Your task to perform on an android device: toggle location history Image 0: 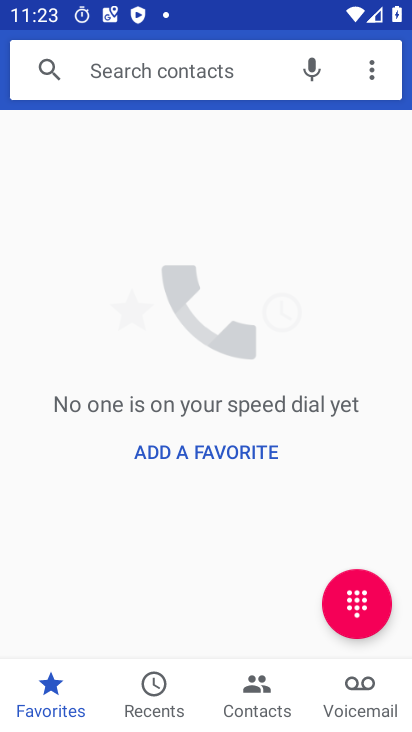
Step 0: press back button
Your task to perform on an android device: toggle location history Image 1: 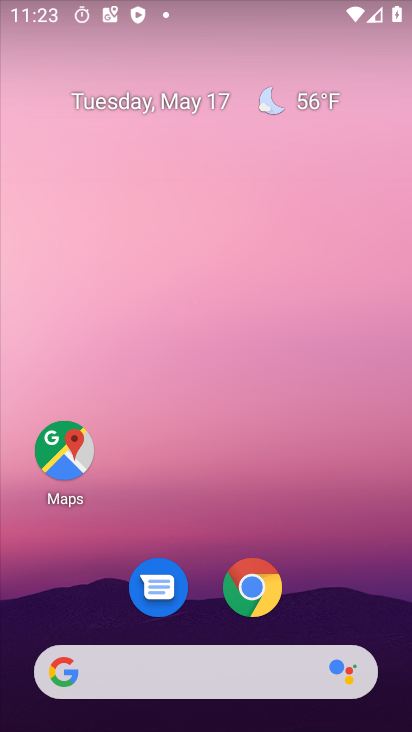
Step 1: drag from (332, 576) to (165, 97)
Your task to perform on an android device: toggle location history Image 2: 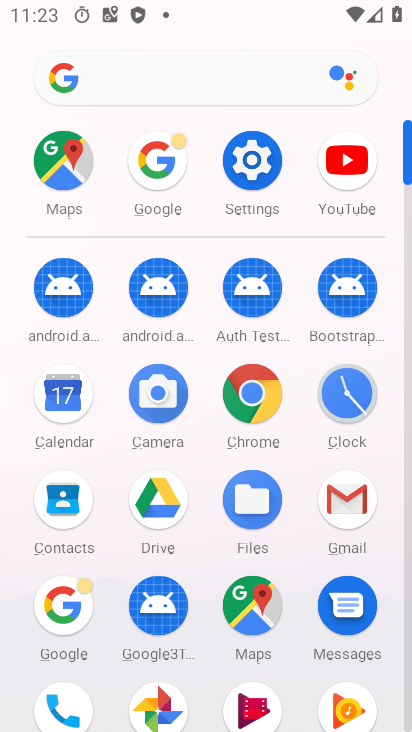
Step 2: click (254, 162)
Your task to perform on an android device: toggle location history Image 3: 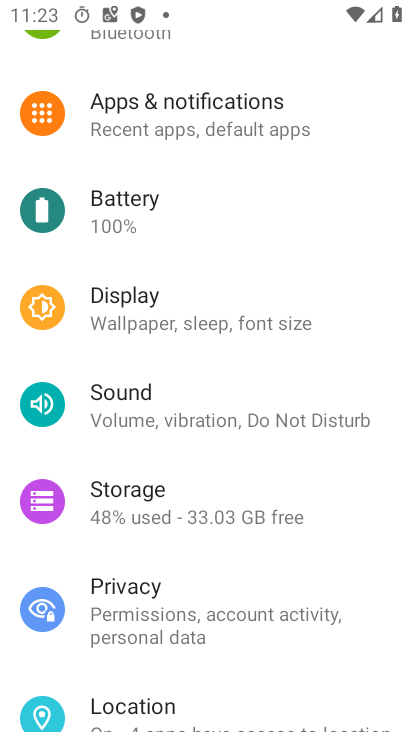
Step 3: drag from (186, 483) to (195, 323)
Your task to perform on an android device: toggle location history Image 4: 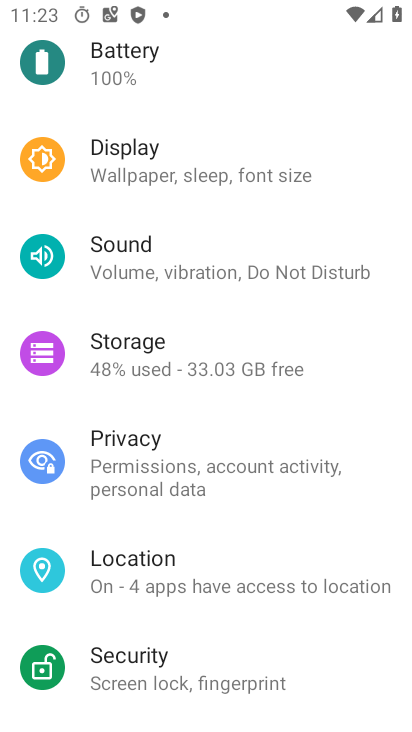
Step 4: drag from (160, 529) to (175, 399)
Your task to perform on an android device: toggle location history Image 5: 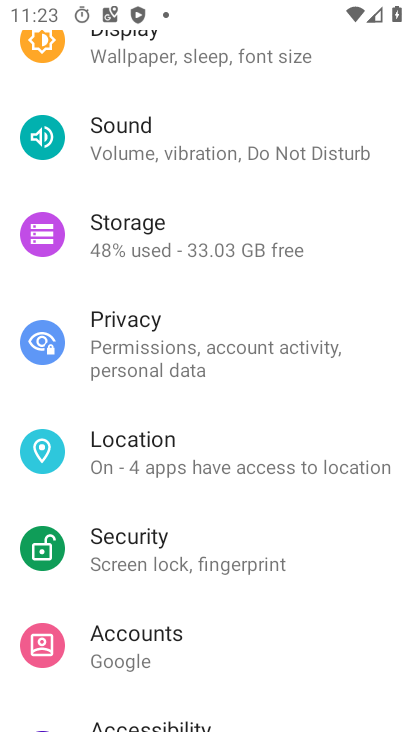
Step 5: drag from (142, 513) to (162, 387)
Your task to perform on an android device: toggle location history Image 6: 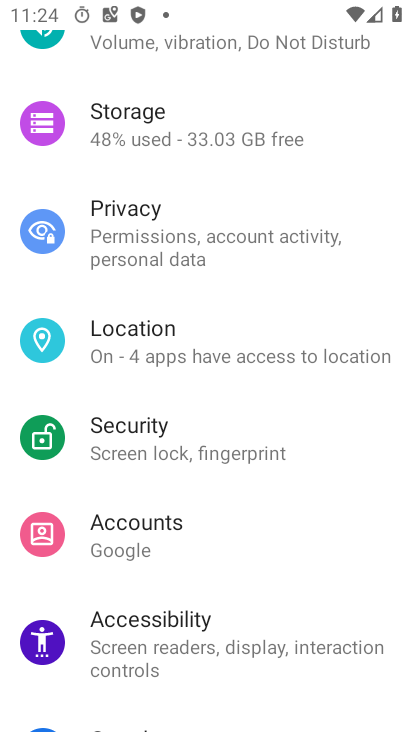
Step 6: click (143, 340)
Your task to perform on an android device: toggle location history Image 7: 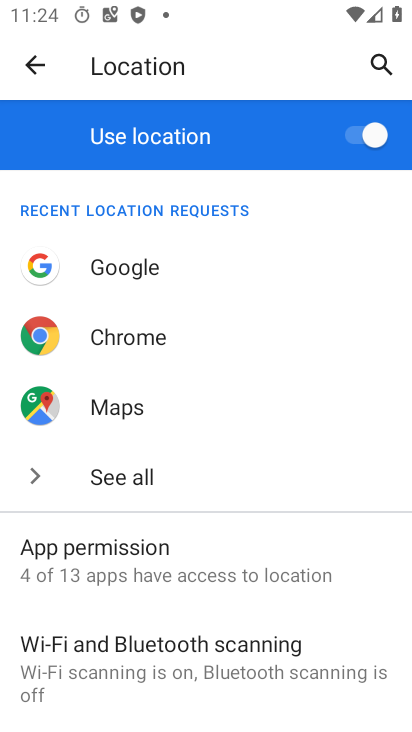
Step 7: drag from (128, 628) to (152, 505)
Your task to perform on an android device: toggle location history Image 8: 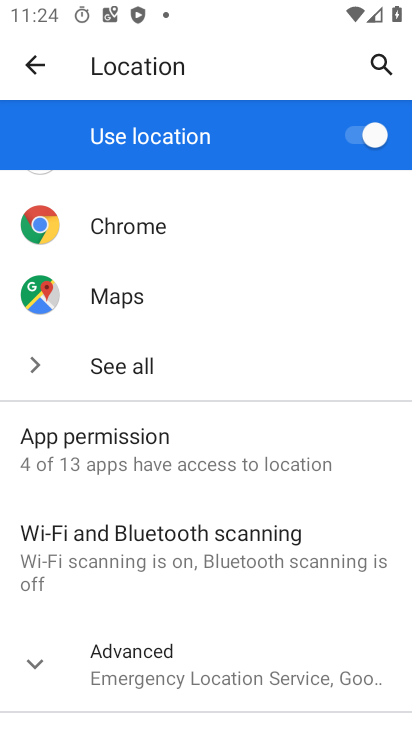
Step 8: drag from (113, 584) to (122, 501)
Your task to perform on an android device: toggle location history Image 9: 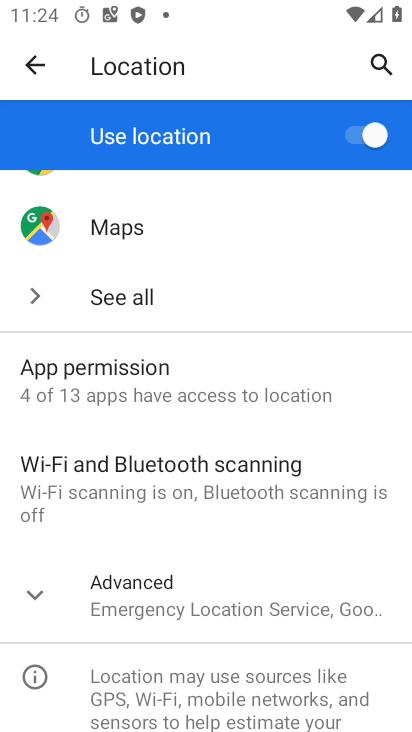
Step 9: click (150, 606)
Your task to perform on an android device: toggle location history Image 10: 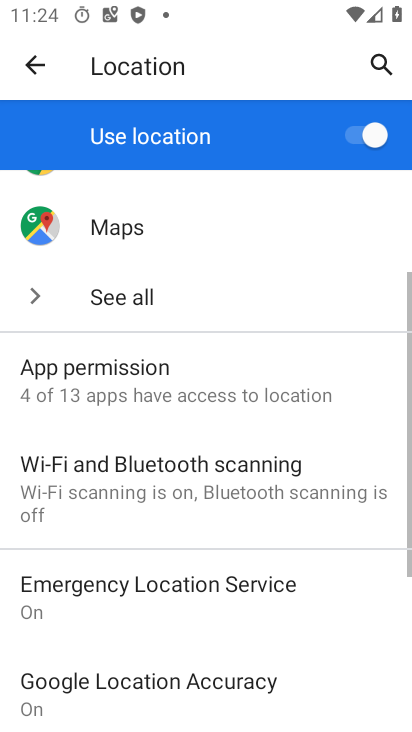
Step 10: drag from (150, 606) to (175, 486)
Your task to perform on an android device: toggle location history Image 11: 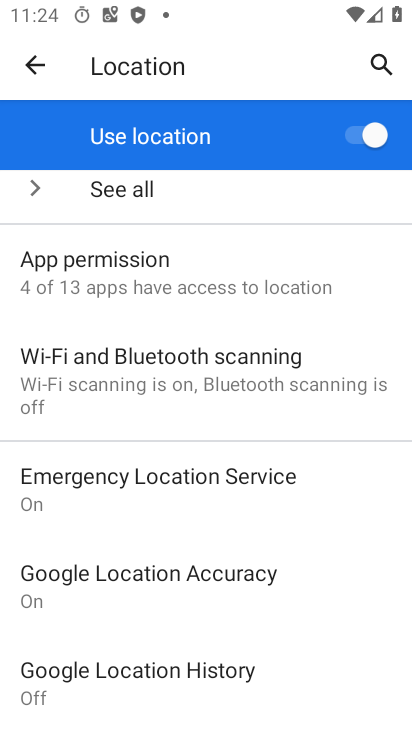
Step 11: drag from (151, 630) to (245, 498)
Your task to perform on an android device: toggle location history Image 12: 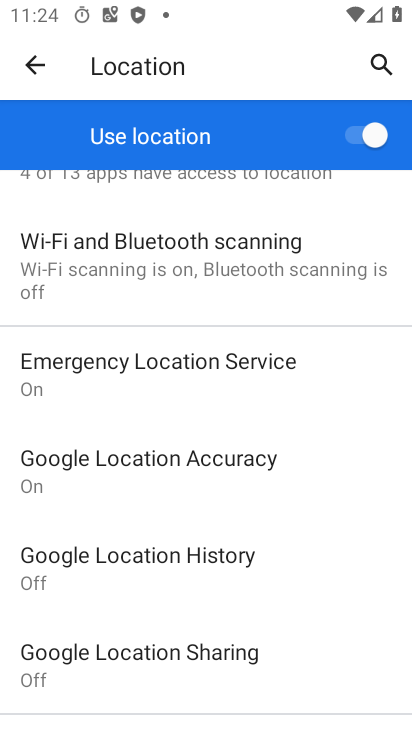
Step 12: click (138, 557)
Your task to perform on an android device: toggle location history Image 13: 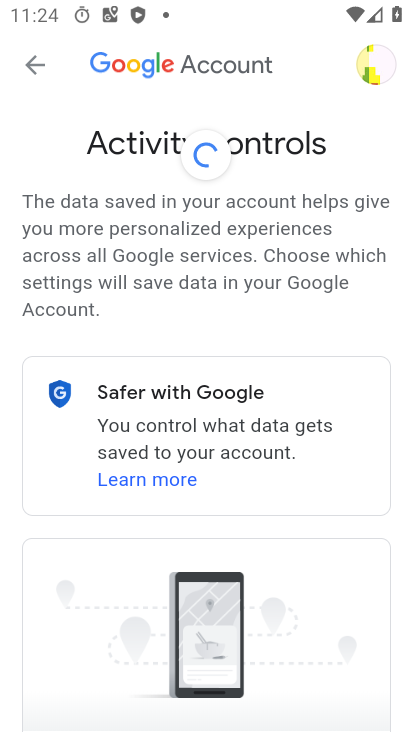
Step 13: drag from (233, 599) to (246, 290)
Your task to perform on an android device: toggle location history Image 14: 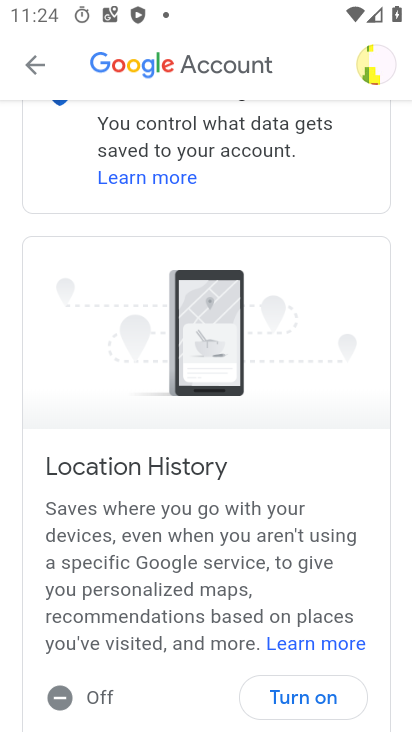
Step 14: click (297, 700)
Your task to perform on an android device: toggle location history Image 15: 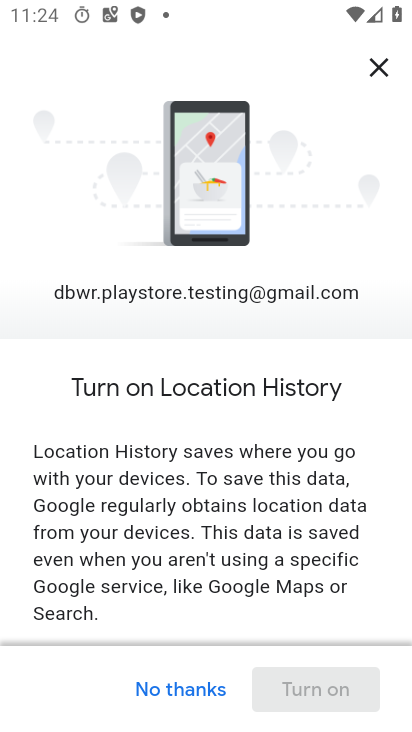
Step 15: drag from (248, 590) to (266, 438)
Your task to perform on an android device: toggle location history Image 16: 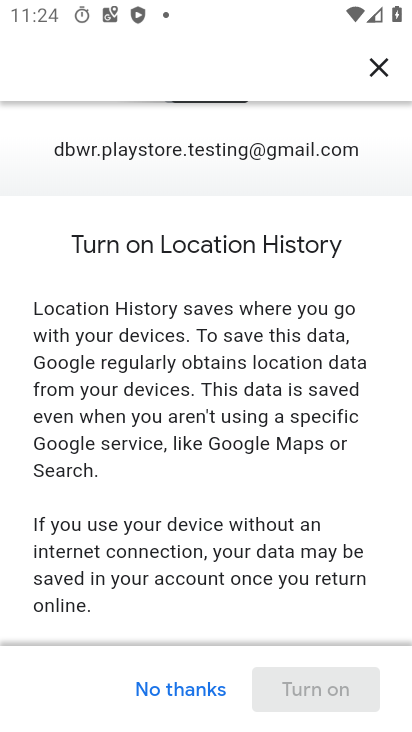
Step 16: drag from (214, 575) to (240, 401)
Your task to perform on an android device: toggle location history Image 17: 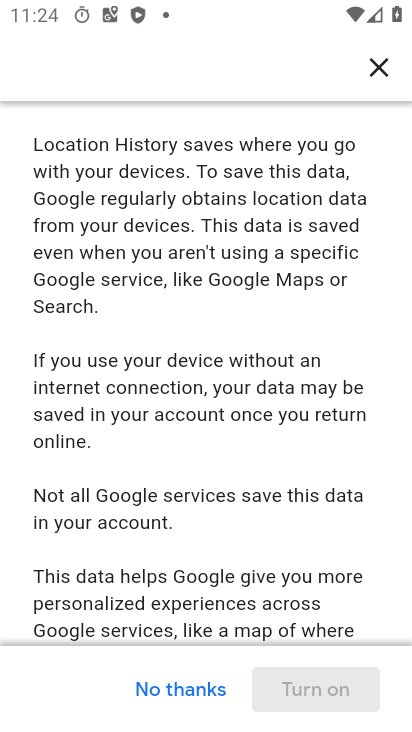
Step 17: drag from (180, 552) to (225, 408)
Your task to perform on an android device: toggle location history Image 18: 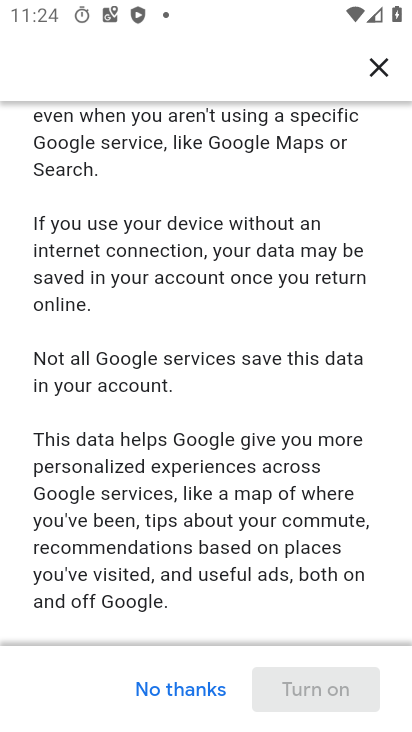
Step 18: drag from (205, 590) to (283, 420)
Your task to perform on an android device: toggle location history Image 19: 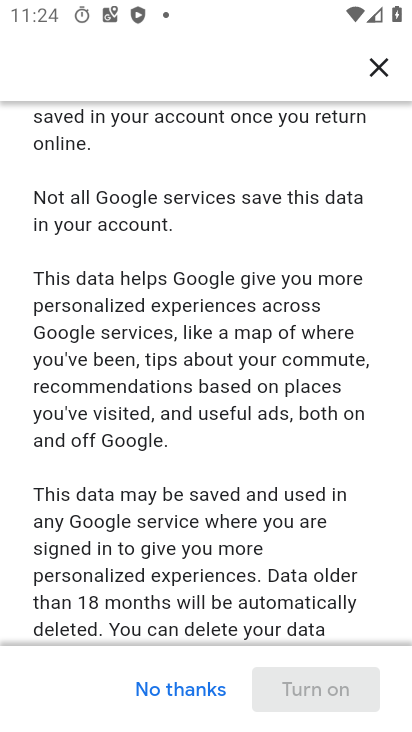
Step 19: drag from (239, 627) to (309, 494)
Your task to perform on an android device: toggle location history Image 20: 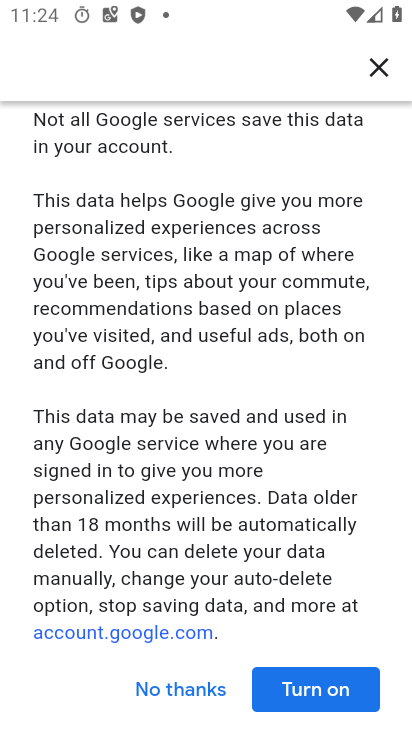
Step 20: click (299, 690)
Your task to perform on an android device: toggle location history Image 21: 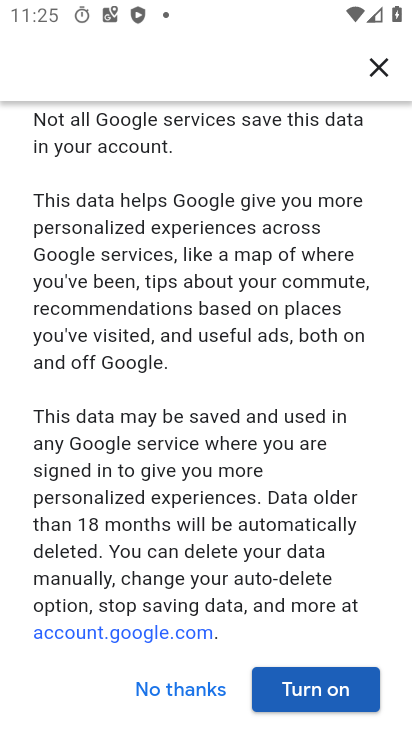
Step 21: click (320, 690)
Your task to perform on an android device: toggle location history Image 22: 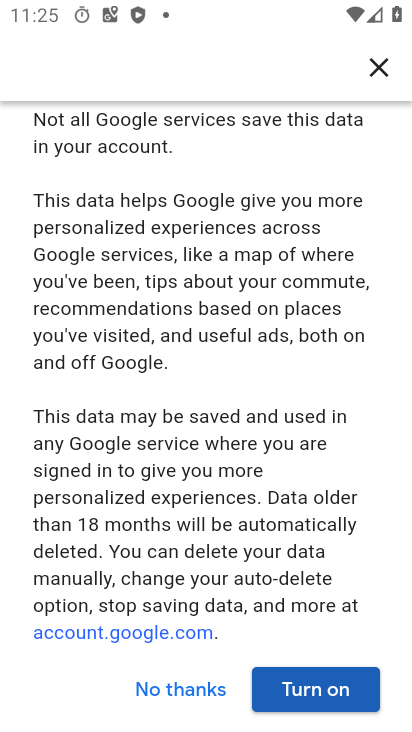
Step 22: click (313, 687)
Your task to perform on an android device: toggle location history Image 23: 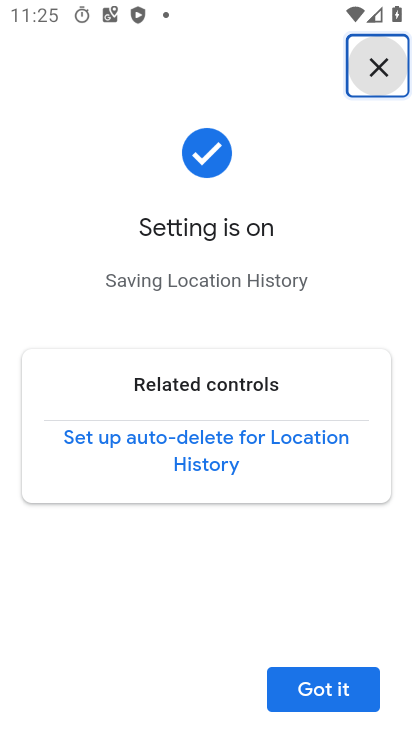
Step 23: click (319, 694)
Your task to perform on an android device: toggle location history Image 24: 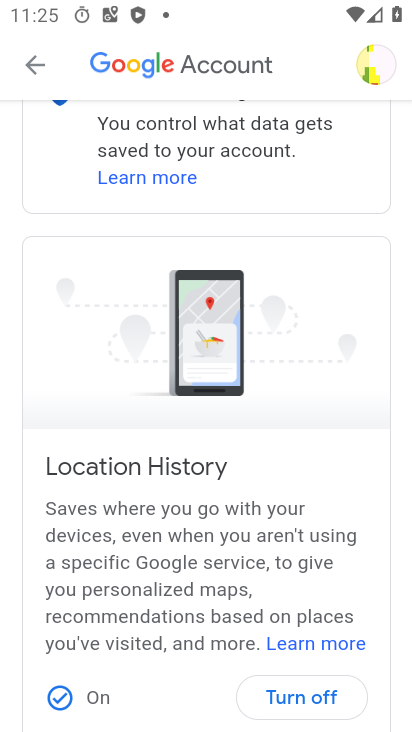
Step 24: task complete